Your task to perform on an android device: Search for Mexican restaurants on Maps Image 0: 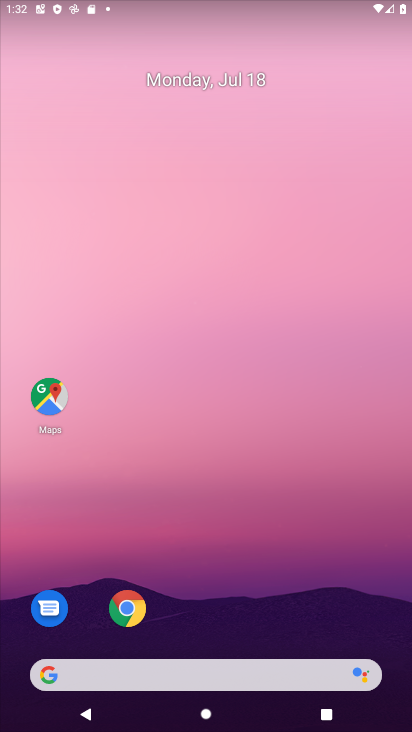
Step 0: drag from (360, 627) to (159, 1)
Your task to perform on an android device: Search for Mexican restaurants on Maps Image 1: 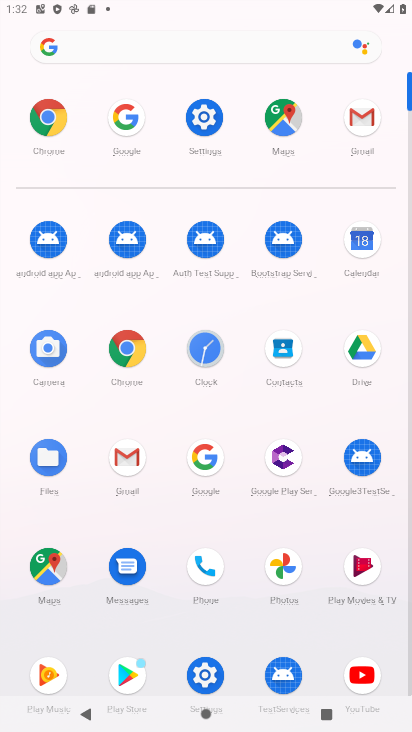
Step 1: click (48, 577)
Your task to perform on an android device: Search for Mexican restaurants on Maps Image 2: 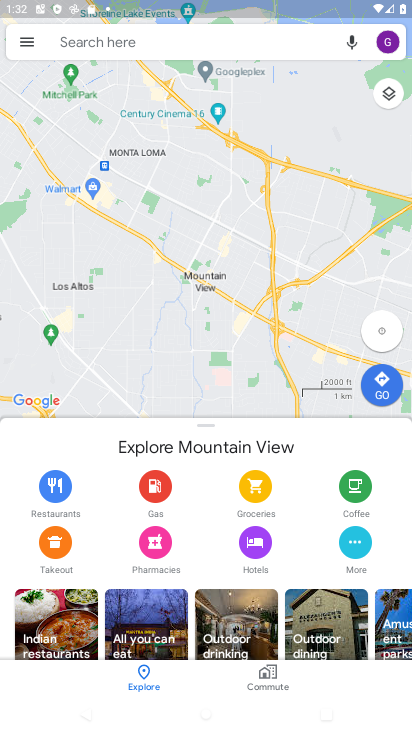
Step 2: click (137, 38)
Your task to perform on an android device: Search for Mexican restaurants on Maps Image 3: 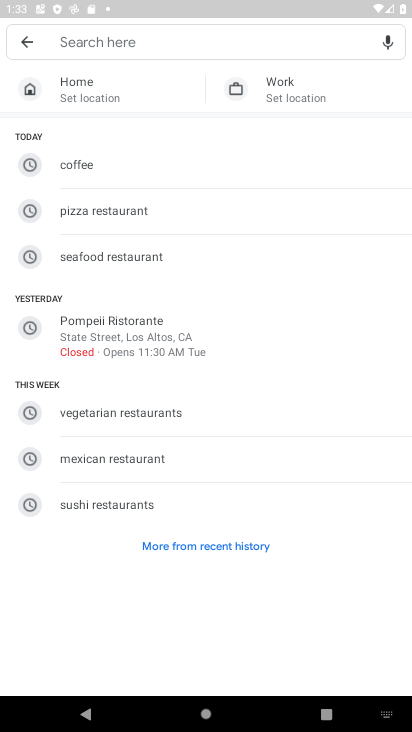
Step 3: click (101, 461)
Your task to perform on an android device: Search for Mexican restaurants on Maps Image 4: 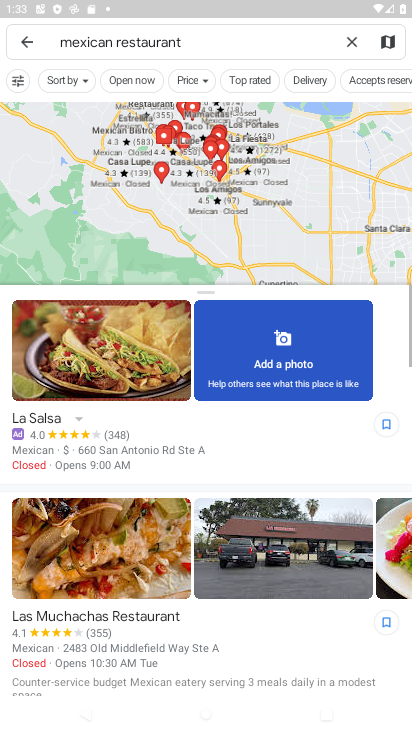
Step 4: task complete